Your task to perform on an android device: choose inbox layout in the gmail app Image 0: 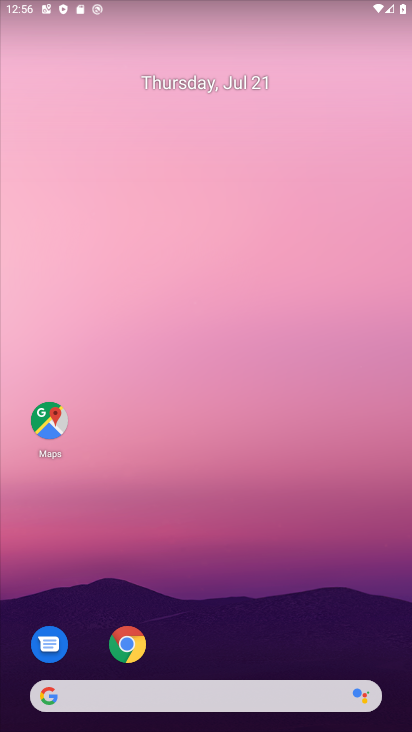
Step 0: drag from (208, 677) to (159, 27)
Your task to perform on an android device: choose inbox layout in the gmail app Image 1: 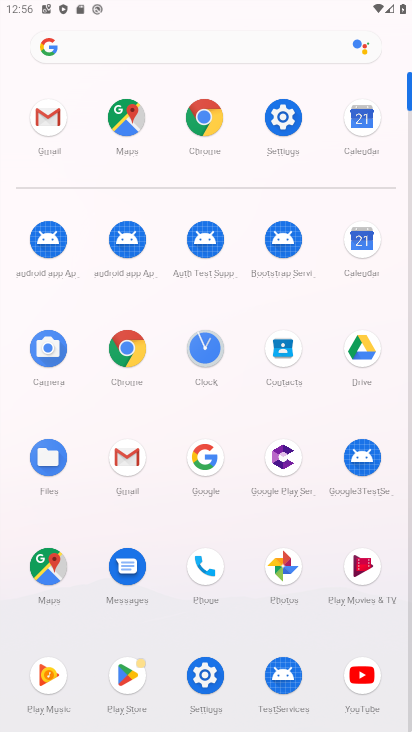
Step 1: click (128, 454)
Your task to perform on an android device: choose inbox layout in the gmail app Image 2: 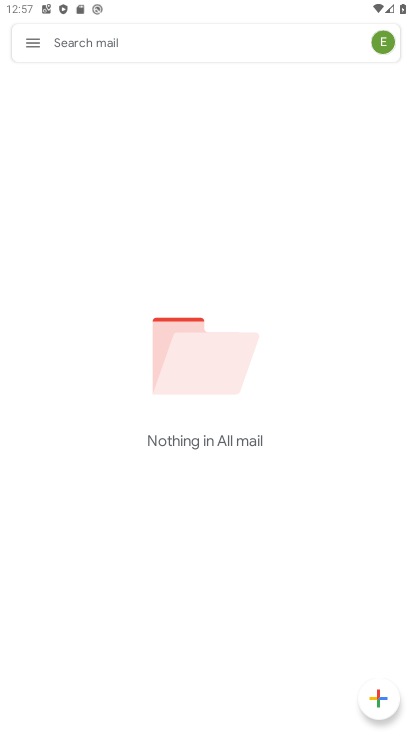
Step 2: click (36, 60)
Your task to perform on an android device: choose inbox layout in the gmail app Image 3: 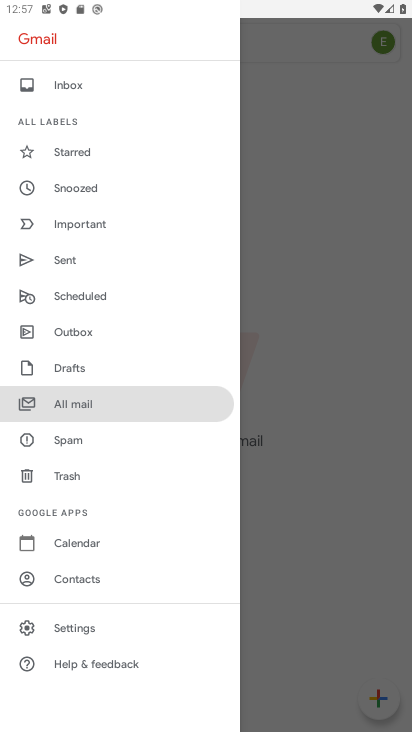
Step 3: click (53, 83)
Your task to perform on an android device: choose inbox layout in the gmail app Image 4: 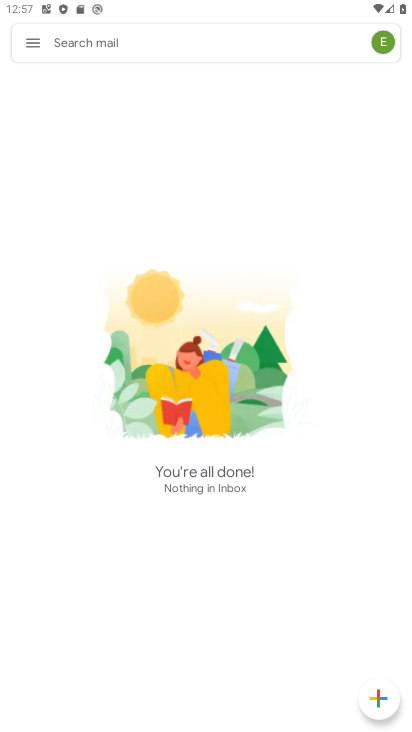
Step 4: task complete